Your task to perform on an android device: Go to display settings Image 0: 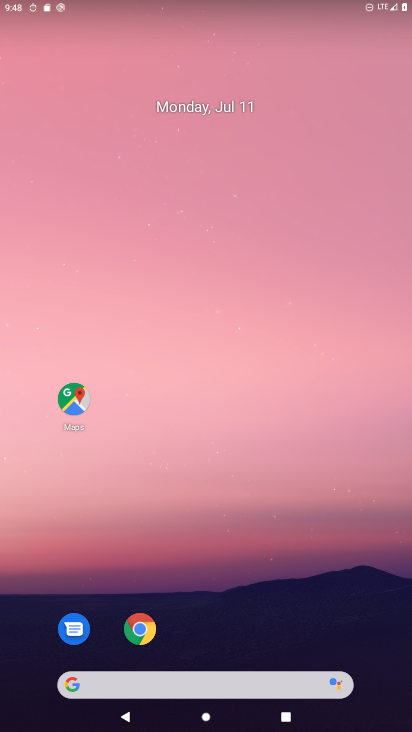
Step 0: drag from (210, 649) to (229, 24)
Your task to perform on an android device: Go to display settings Image 1: 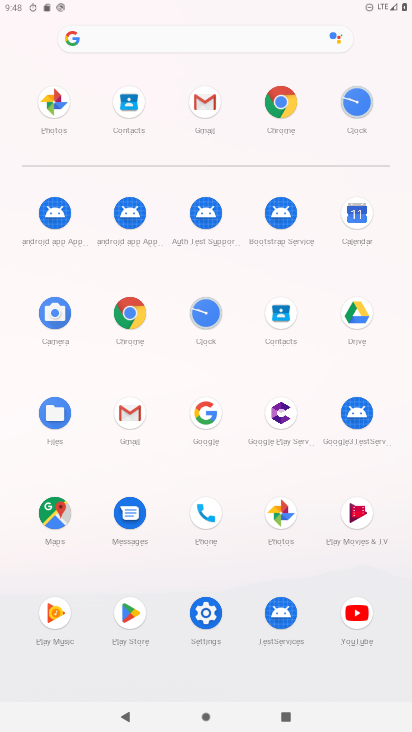
Step 1: click (209, 616)
Your task to perform on an android device: Go to display settings Image 2: 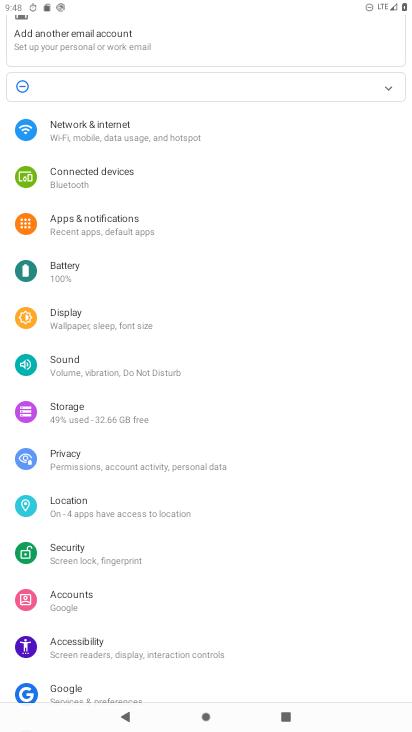
Step 2: click (83, 311)
Your task to perform on an android device: Go to display settings Image 3: 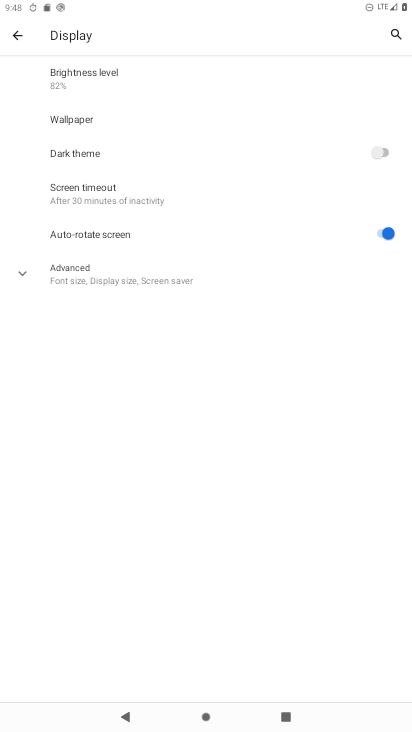
Step 3: task complete